Your task to perform on an android device: Go to Amazon Image 0: 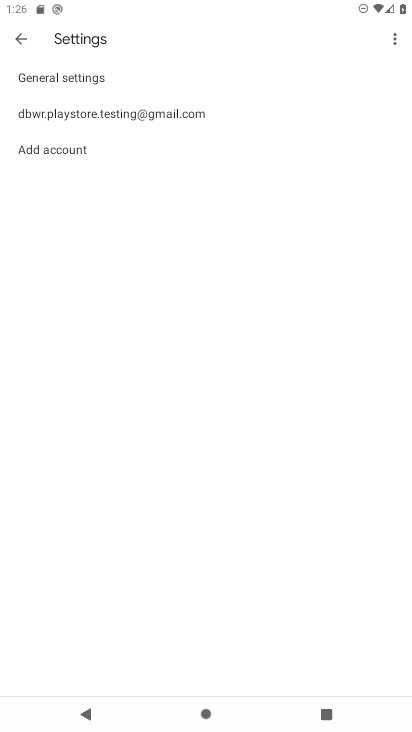
Step 0: press home button
Your task to perform on an android device: Go to Amazon Image 1: 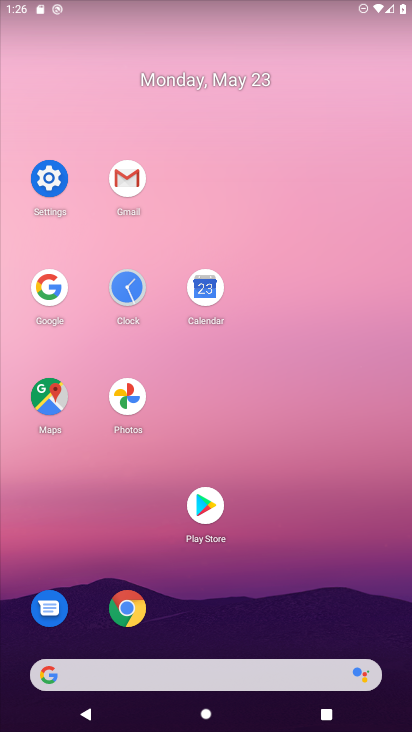
Step 1: click (134, 604)
Your task to perform on an android device: Go to Amazon Image 2: 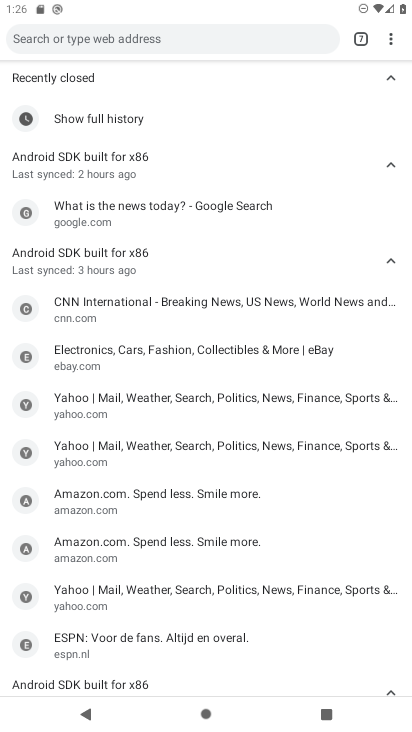
Step 2: click (363, 29)
Your task to perform on an android device: Go to Amazon Image 3: 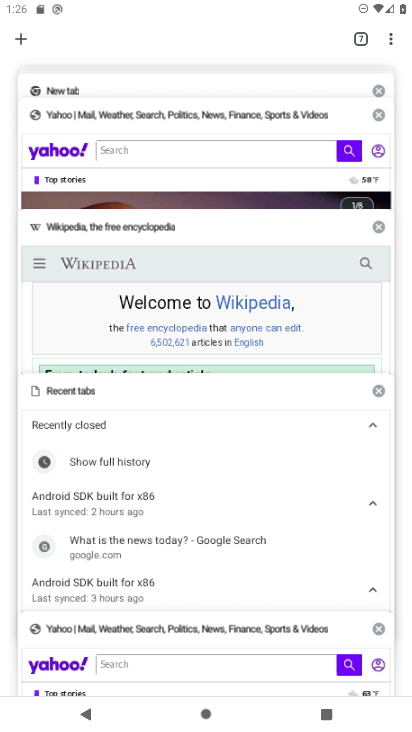
Step 3: drag from (185, 271) to (203, 507)
Your task to perform on an android device: Go to Amazon Image 4: 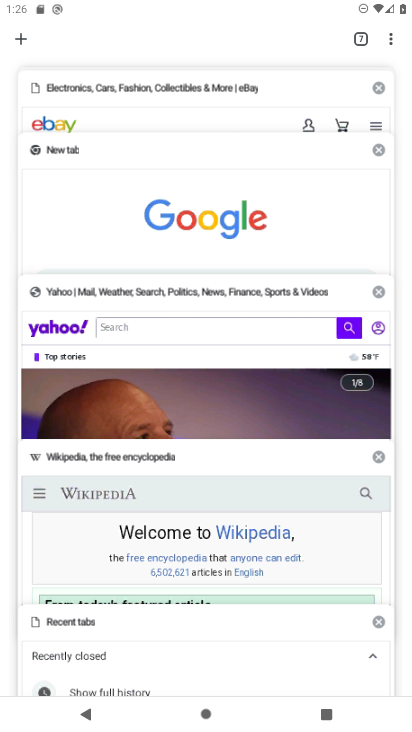
Step 4: drag from (185, 196) to (206, 537)
Your task to perform on an android device: Go to Amazon Image 5: 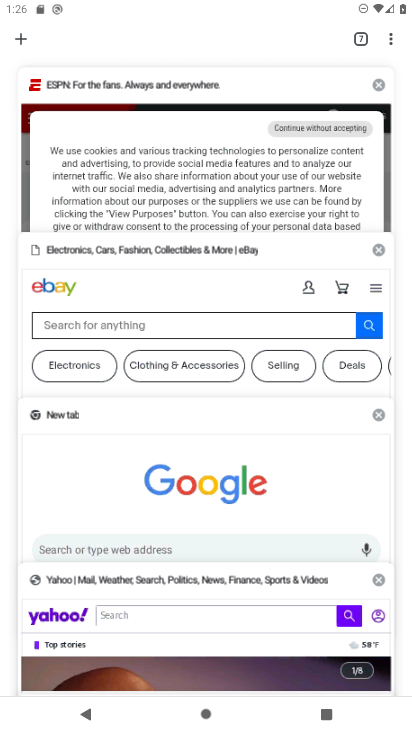
Step 5: drag from (196, 221) to (204, 502)
Your task to perform on an android device: Go to Amazon Image 6: 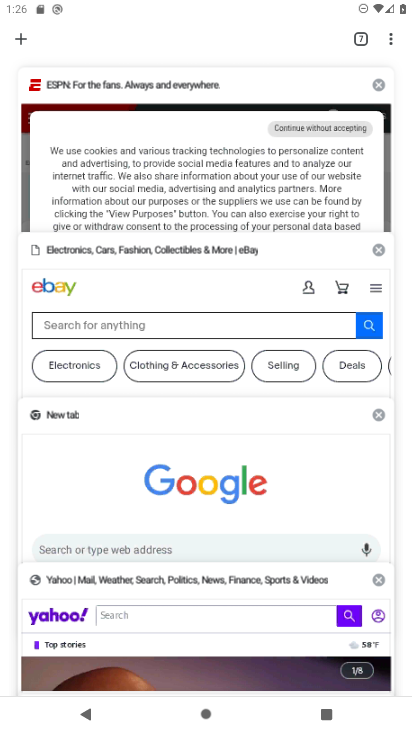
Step 6: drag from (176, 464) to (201, 106)
Your task to perform on an android device: Go to Amazon Image 7: 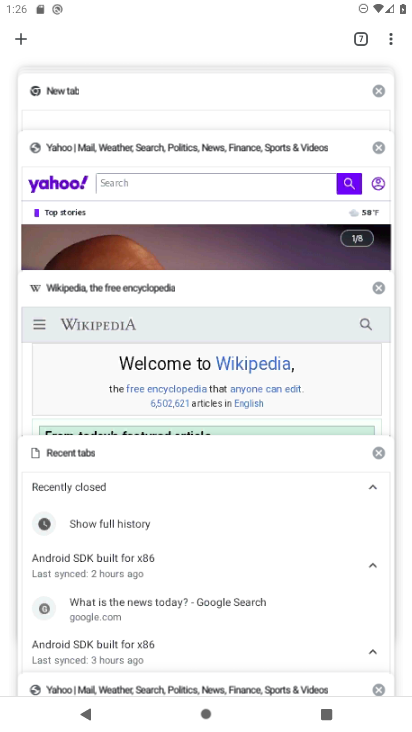
Step 7: drag from (222, 396) to (236, 69)
Your task to perform on an android device: Go to Amazon Image 8: 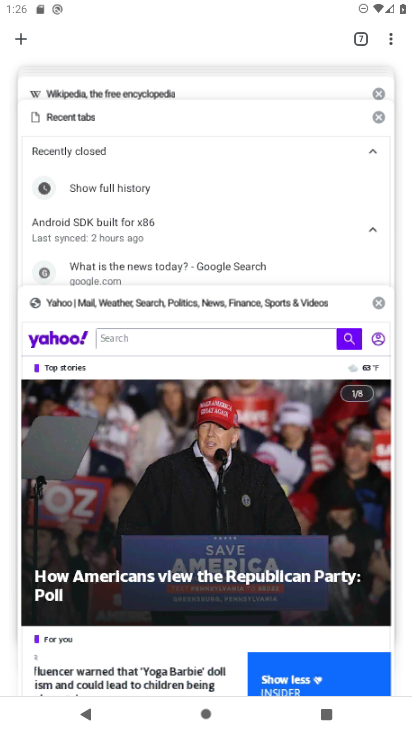
Step 8: drag from (179, 508) to (225, 76)
Your task to perform on an android device: Go to Amazon Image 9: 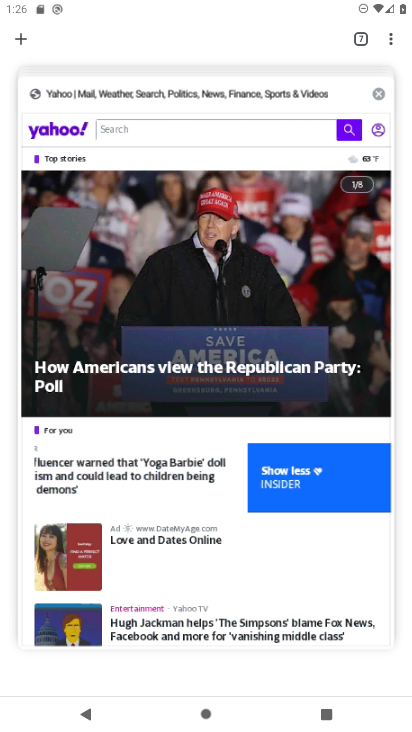
Step 9: click (19, 31)
Your task to perform on an android device: Go to Amazon Image 10: 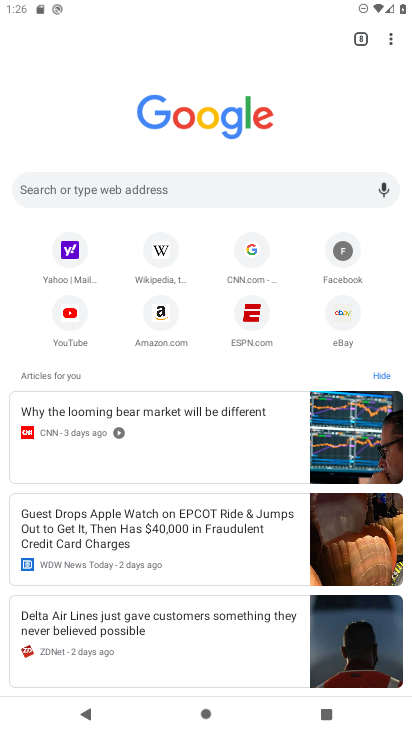
Step 10: click (170, 319)
Your task to perform on an android device: Go to Amazon Image 11: 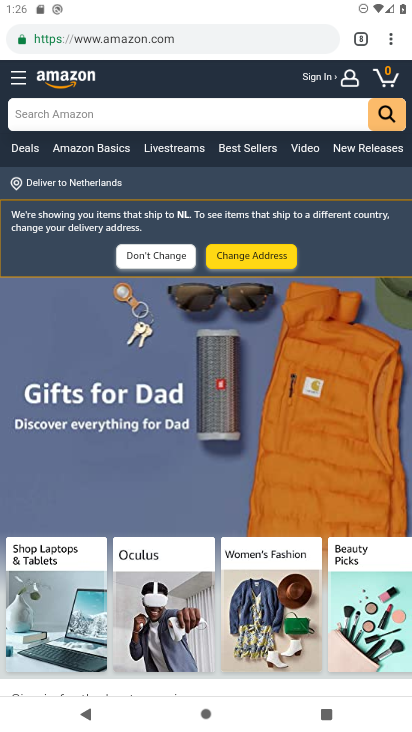
Step 11: task complete